Your task to perform on an android device: empty trash in google photos Image 0: 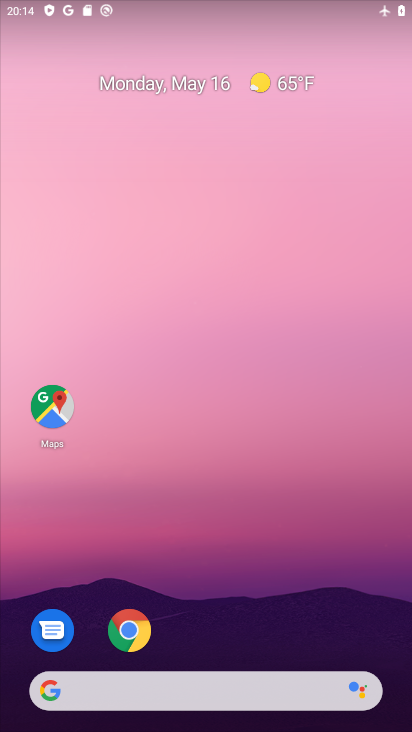
Step 0: drag from (203, 646) to (207, 201)
Your task to perform on an android device: empty trash in google photos Image 1: 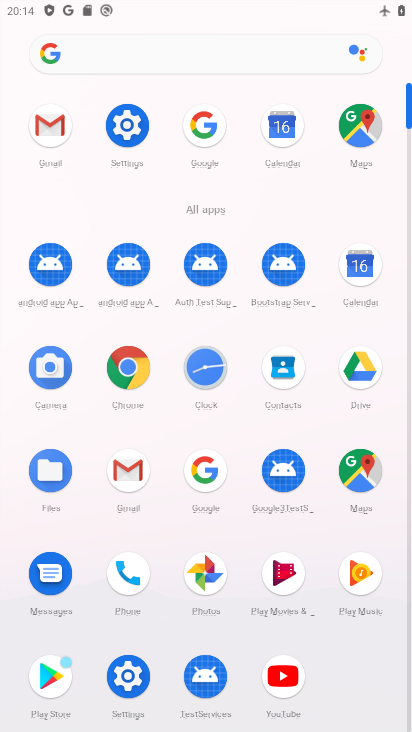
Step 1: click (206, 574)
Your task to perform on an android device: empty trash in google photos Image 2: 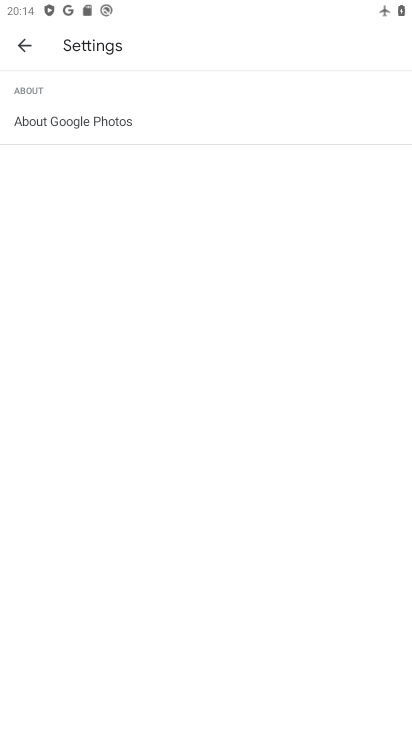
Step 2: click (24, 48)
Your task to perform on an android device: empty trash in google photos Image 3: 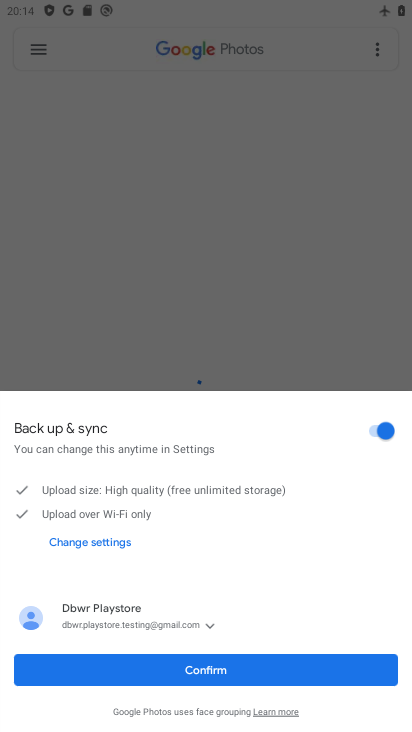
Step 3: click (24, 48)
Your task to perform on an android device: empty trash in google photos Image 4: 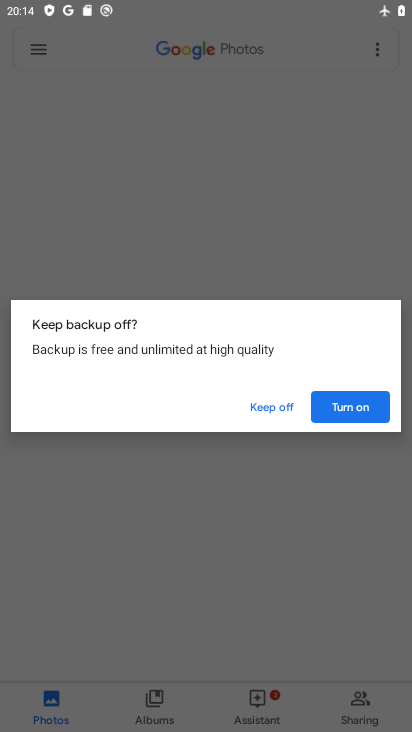
Step 4: click (276, 409)
Your task to perform on an android device: empty trash in google photos Image 5: 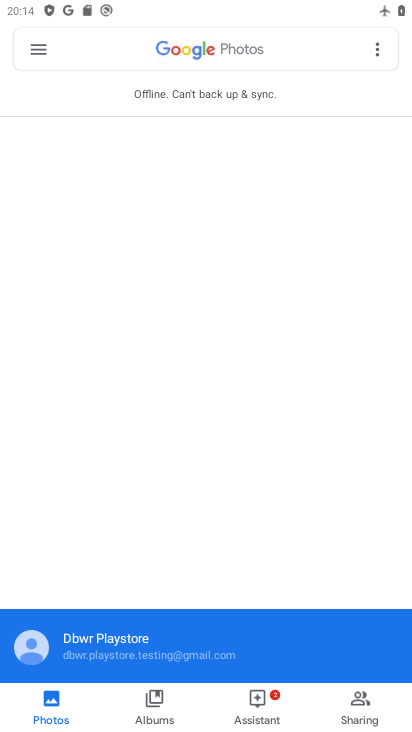
Step 5: click (44, 50)
Your task to perform on an android device: empty trash in google photos Image 6: 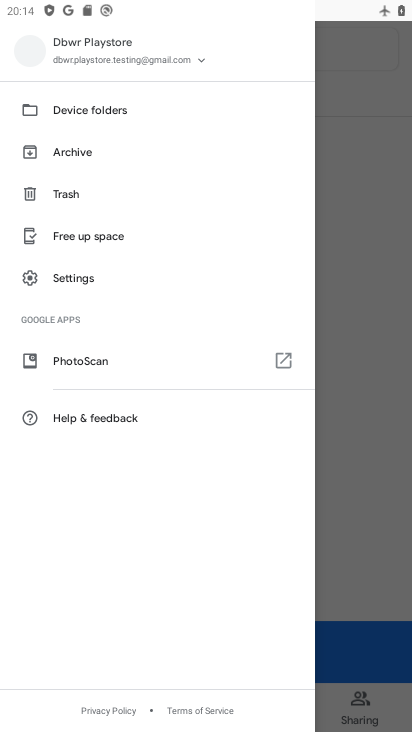
Step 6: click (88, 194)
Your task to perform on an android device: empty trash in google photos Image 7: 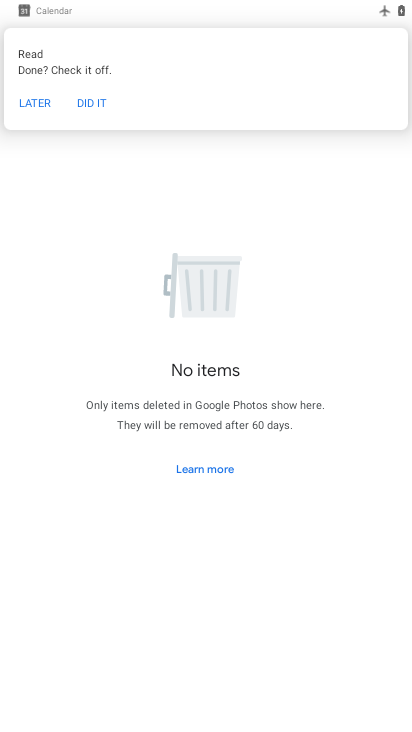
Step 7: task complete